Your task to perform on an android device: see sites visited before in the chrome app Image 0: 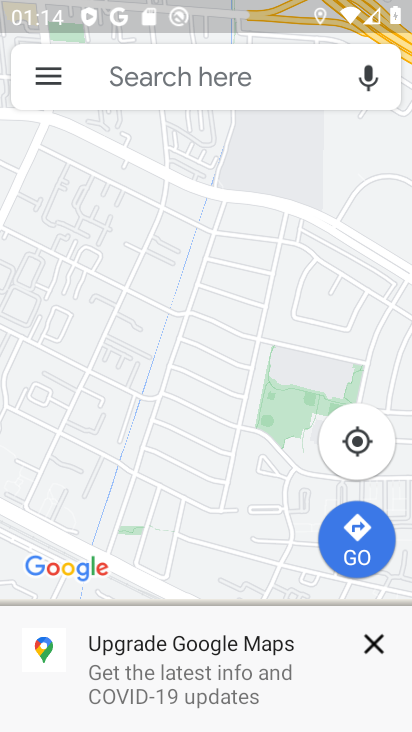
Step 0: press home button
Your task to perform on an android device: see sites visited before in the chrome app Image 1: 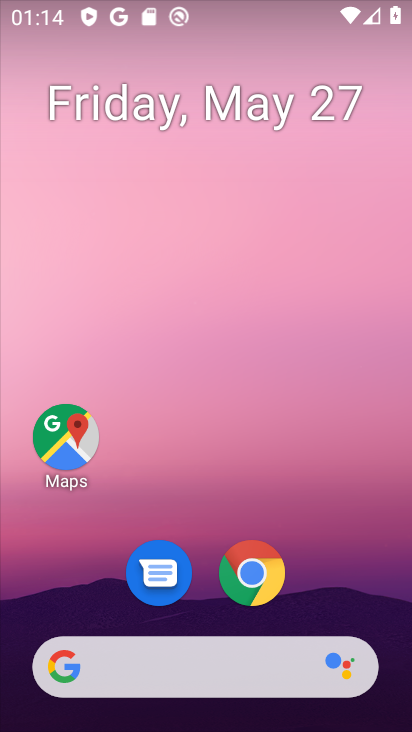
Step 1: drag from (184, 622) to (105, 1)
Your task to perform on an android device: see sites visited before in the chrome app Image 2: 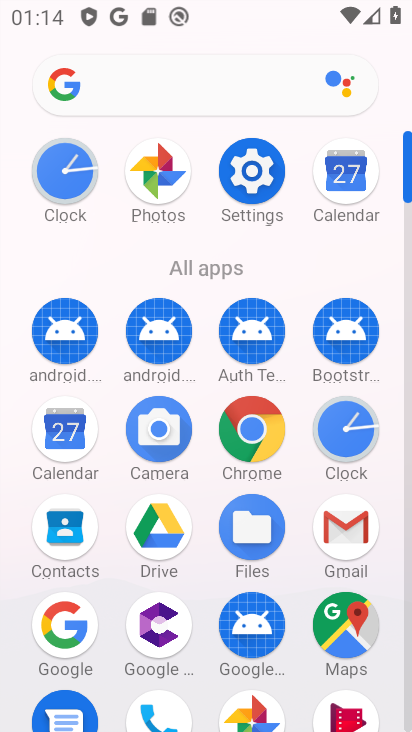
Step 2: click (238, 435)
Your task to perform on an android device: see sites visited before in the chrome app Image 3: 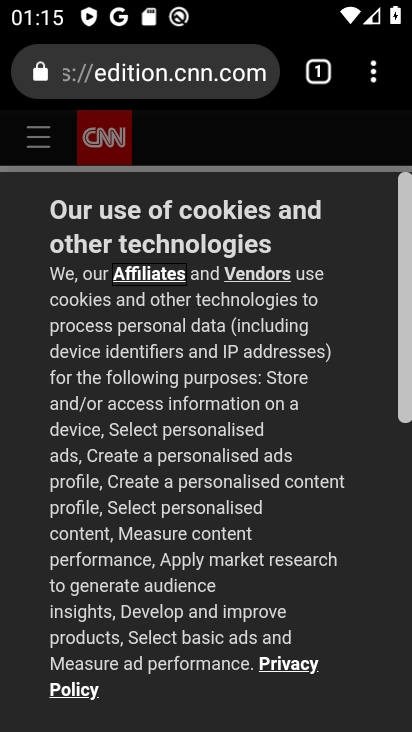
Step 3: press home button
Your task to perform on an android device: see sites visited before in the chrome app Image 4: 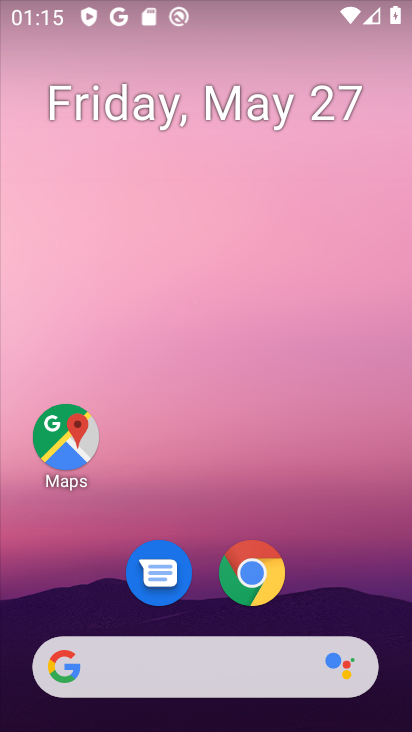
Step 4: click (275, 581)
Your task to perform on an android device: see sites visited before in the chrome app Image 5: 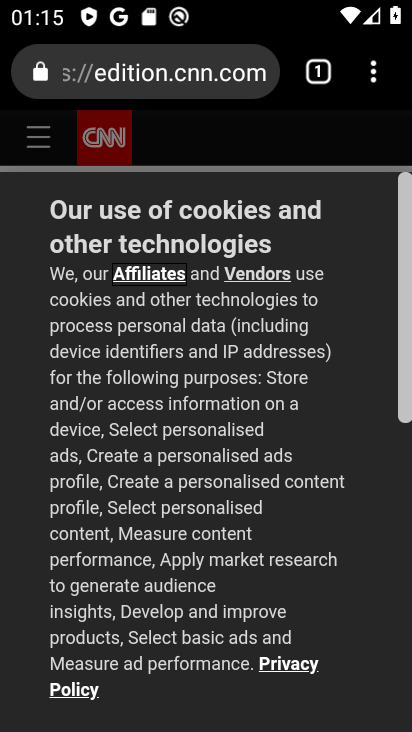
Step 5: click (366, 78)
Your task to perform on an android device: see sites visited before in the chrome app Image 6: 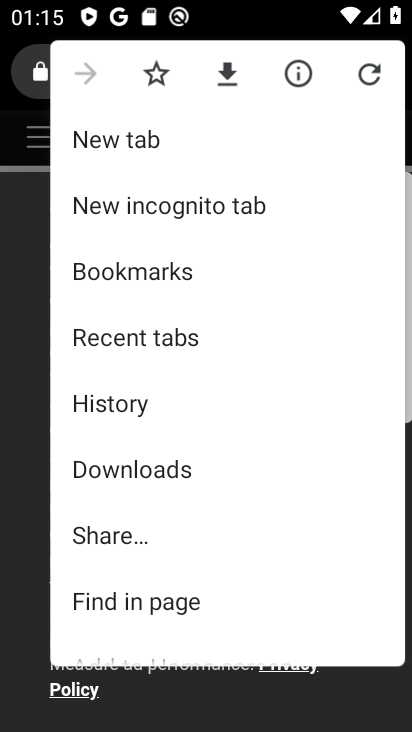
Step 6: click (107, 391)
Your task to perform on an android device: see sites visited before in the chrome app Image 7: 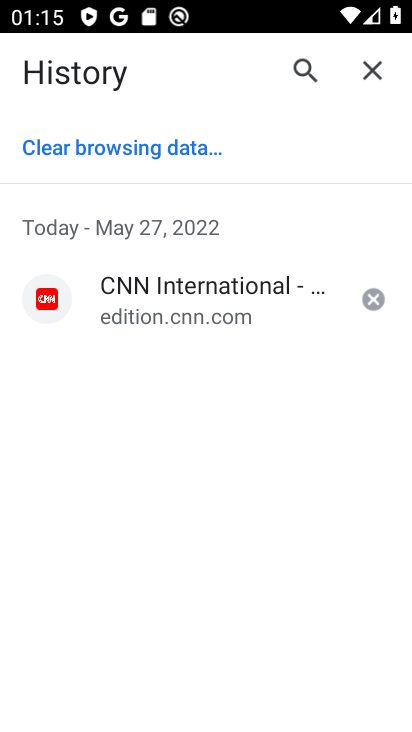
Step 7: task complete